Your task to perform on an android device: Open Youtube and go to "Your channel" Image 0: 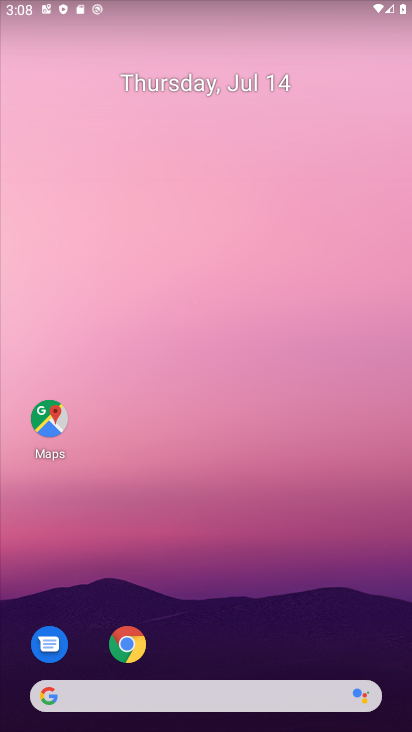
Step 0: drag from (183, 605) to (208, 122)
Your task to perform on an android device: Open Youtube and go to "Your channel" Image 1: 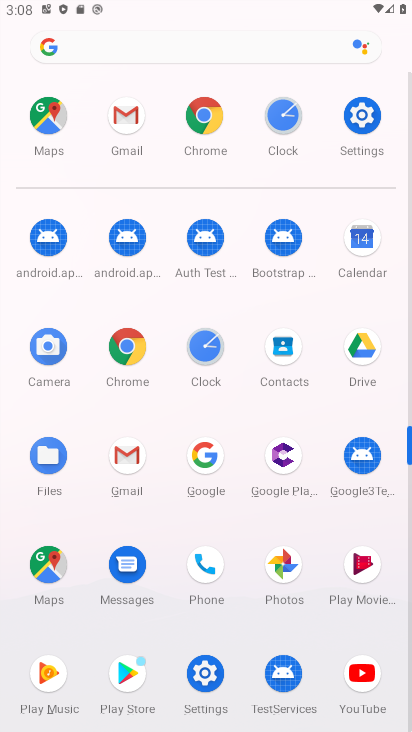
Step 1: click (366, 682)
Your task to perform on an android device: Open Youtube and go to "Your channel" Image 2: 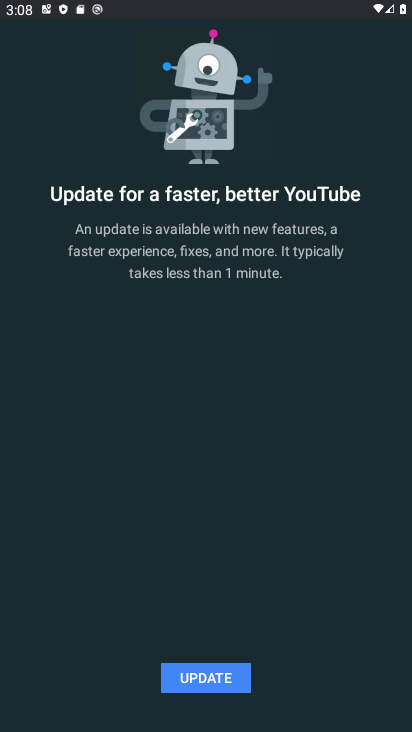
Step 2: press home button
Your task to perform on an android device: Open Youtube and go to "Your channel" Image 3: 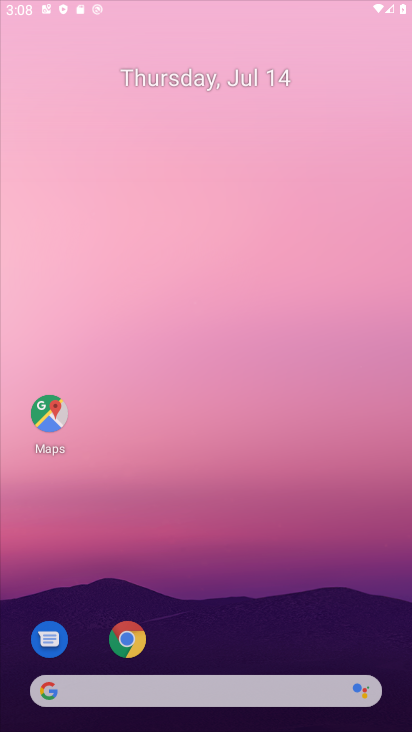
Step 3: drag from (89, 680) to (174, 220)
Your task to perform on an android device: Open Youtube and go to "Your channel" Image 4: 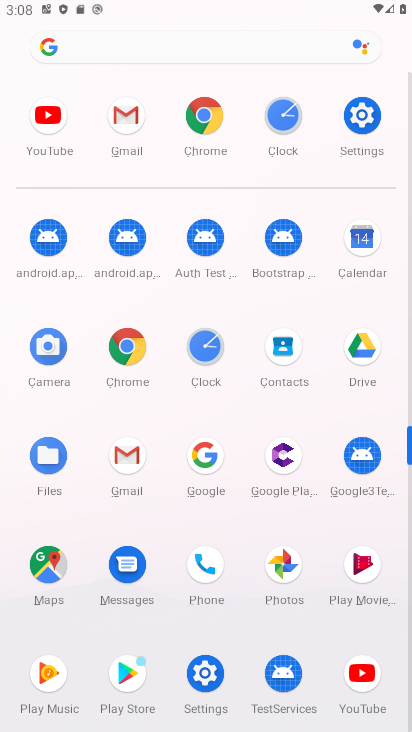
Step 4: click (363, 666)
Your task to perform on an android device: Open Youtube and go to "Your channel" Image 5: 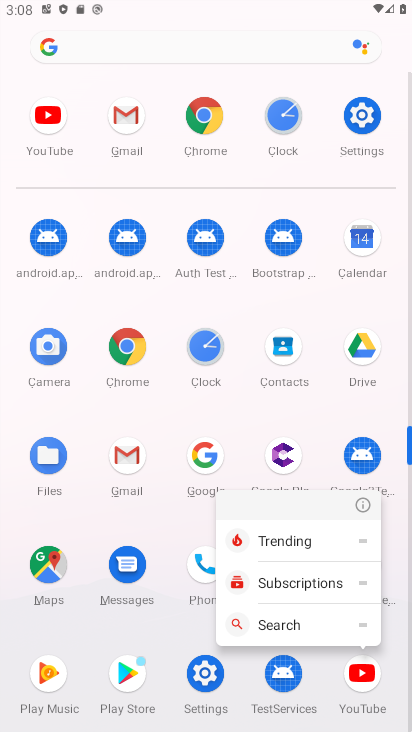
Step 5: click (358, 502)
Your task to perform on an android device: Open Youtube and go to "Your channel" Image 6: 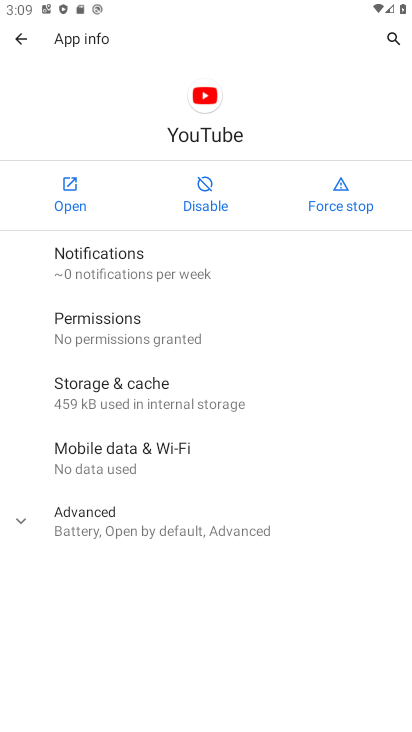
Step 6: click (65, 206)
Your task to perform on an android device: Open Youtube and go to "Your channel" Image 7: 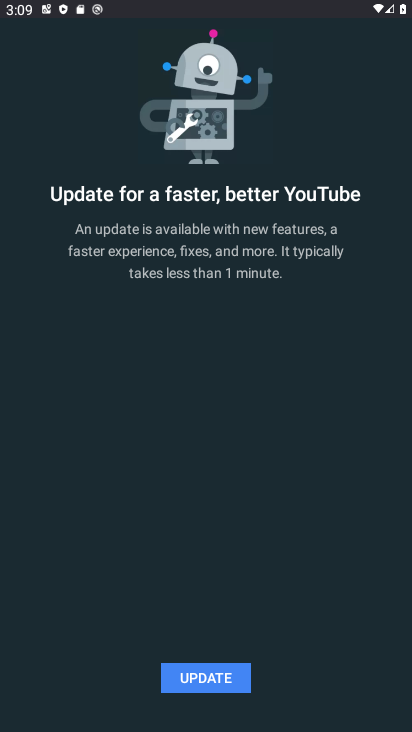
Step 7: press home button
Your task to perform on an android device: Open Youtube and go to "Your channel" Image 8: 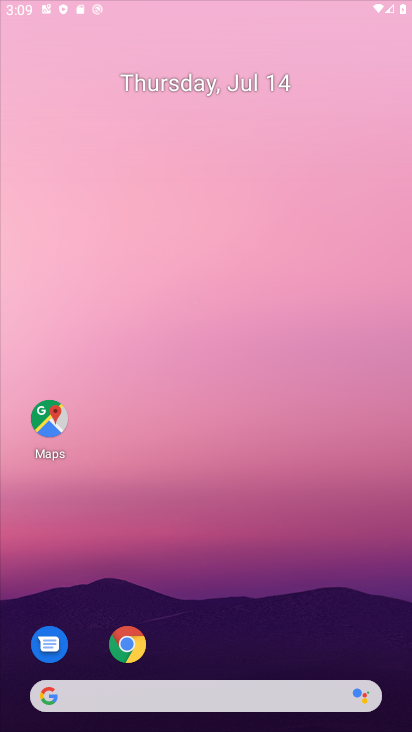
Step 8: drag from (203, 699) to (208, 185)
Your task to perform on an android device: Open Youtube and go to "Your channel" Image 9: 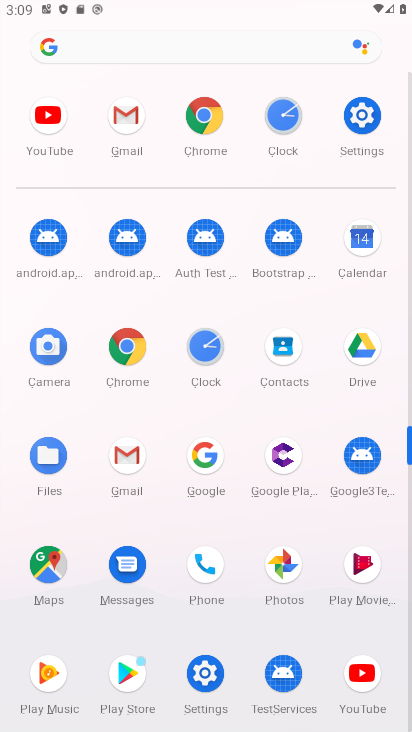
Step 9: click (361, 675)
Your task to perform on an android device: Open Youtube and go to "Your channel" Image 10: 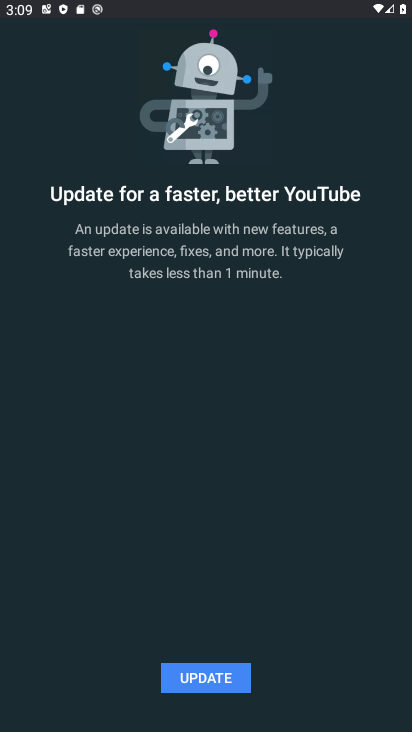
Step 10: drag from (247, 596) to (196, 268)
Your task to perform on an android device: Open Youtube and go to "Your channel" Image 11: 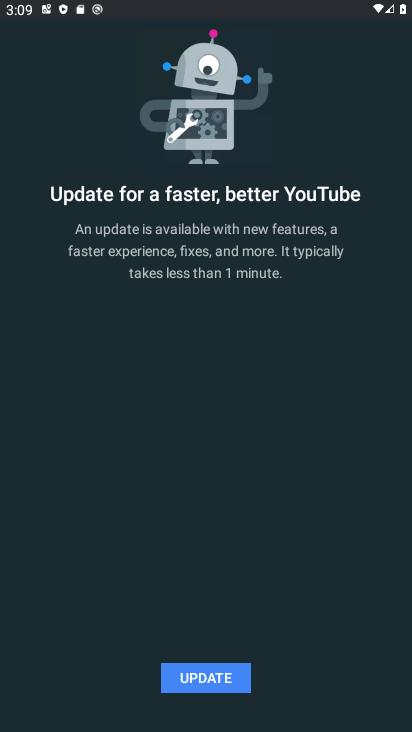
Step 11: drag from (203, 570) to (204, 395)
Your task to perform on an android device: Open Youtube and go to "Your channel" Image 12: 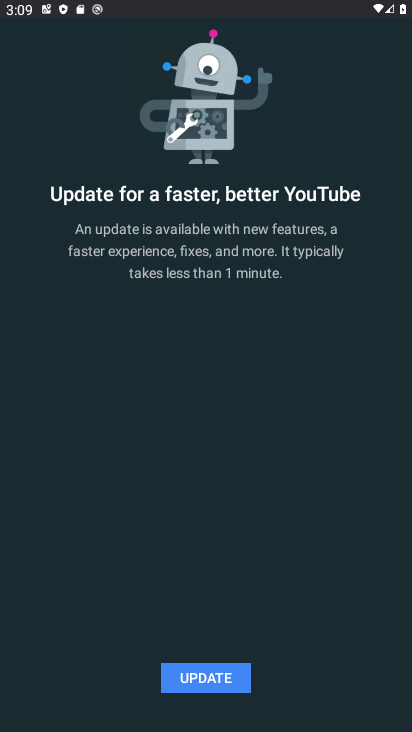
Step 12: click (241, 428)
Your task to perform on an android device: Open Youtube and go to "Your channel" Image 13: 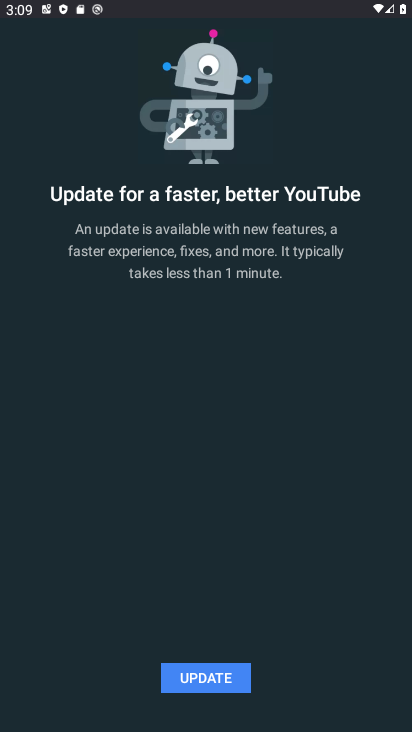
Step 13: task complete